Your task to perform on an android device: Open wifi settings Image 0: 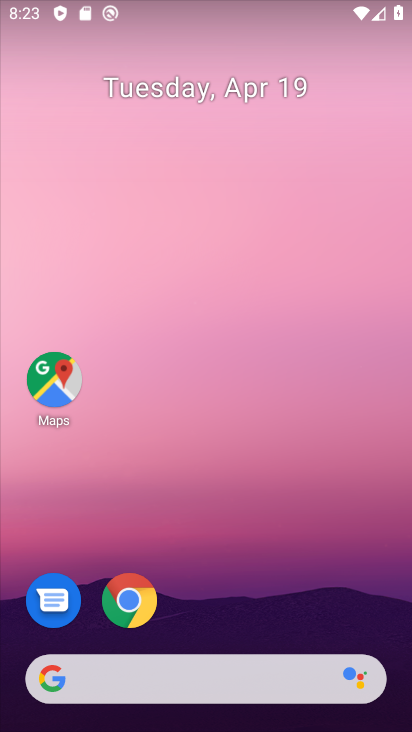
Step 0: drag from (365, 598) to (354, 98)
Your task to perform on an android device: Open wifi settings Image 1: 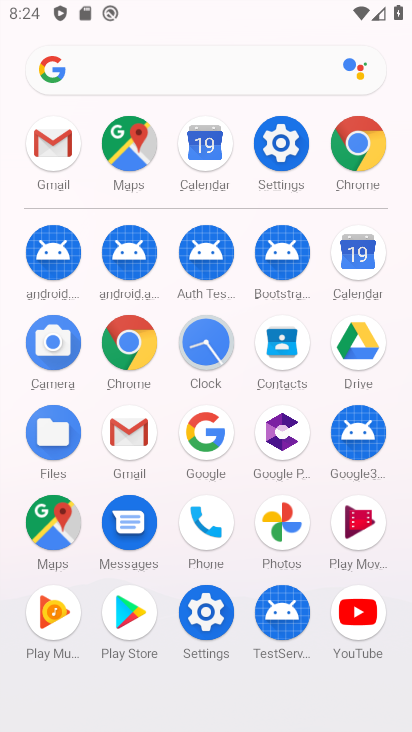
Step 1: click (281, 155)
Your task to perform on an android device: Open wifi settings Image 2: 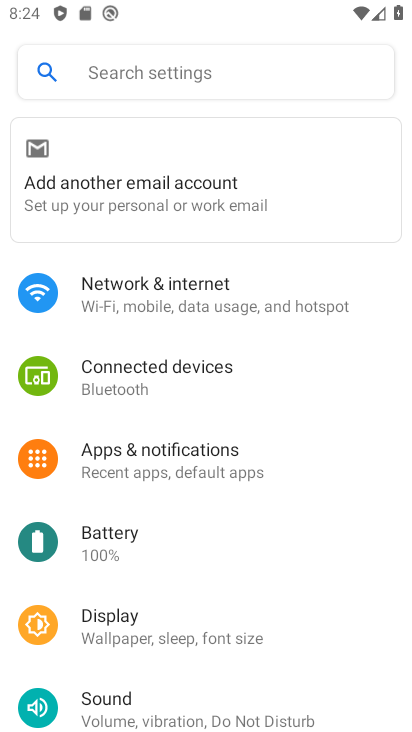
Step 2: drag from (343, 619) to (360, 388)
Your task to perform on an android device: Open wifi settings Image 3: 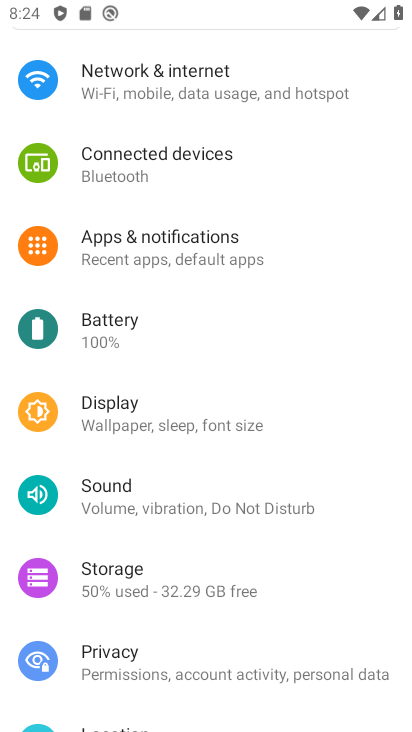
Step 3: drag from (347, 591) to (355, 358)
Your task to perform on an android device: Open wifi settings Image 4: 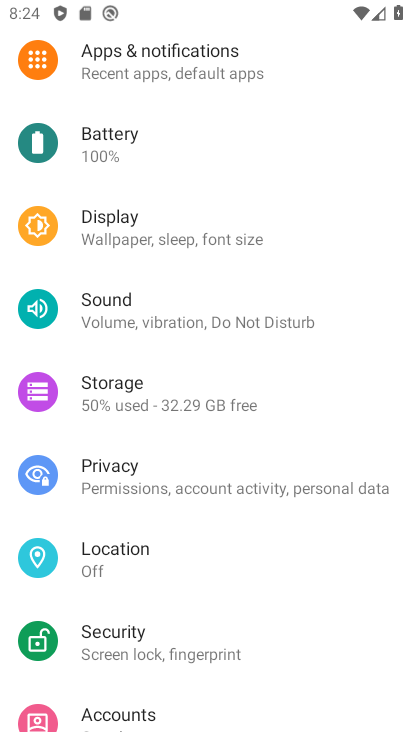
Step 4: drag from (338, 628) to (361, 355)
Your task to perform on an android device: Open wifi settings Image 5: 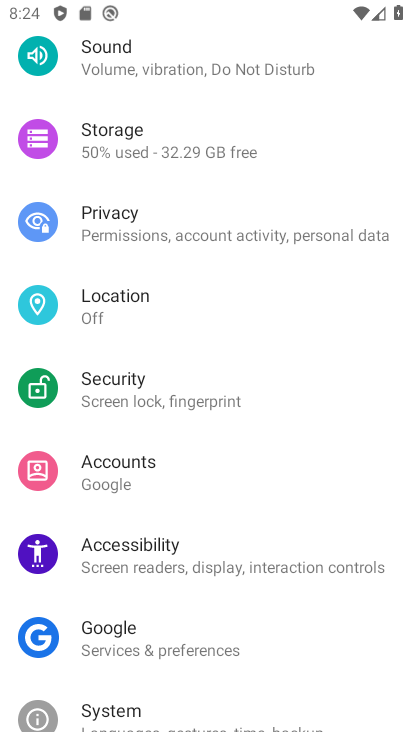
Step 5: drag from (327, 665) to (351, 417)
Your task to perform on an android device: Open wifi settings Image 6: 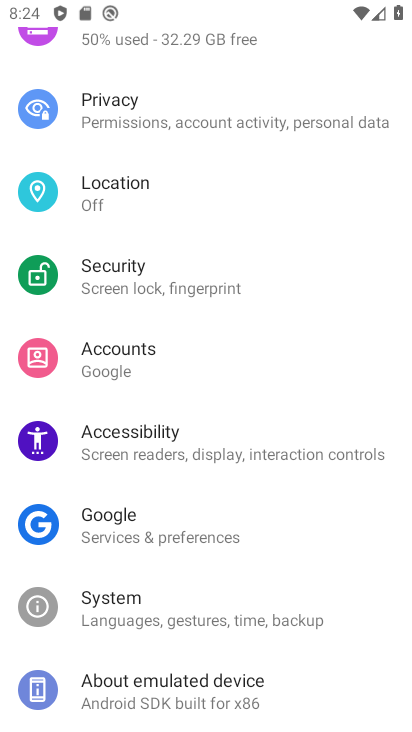
Step 6: drag from (358, 271) to (359, 469)
Your task to perform on an android device: Open wifi settings Image 7: 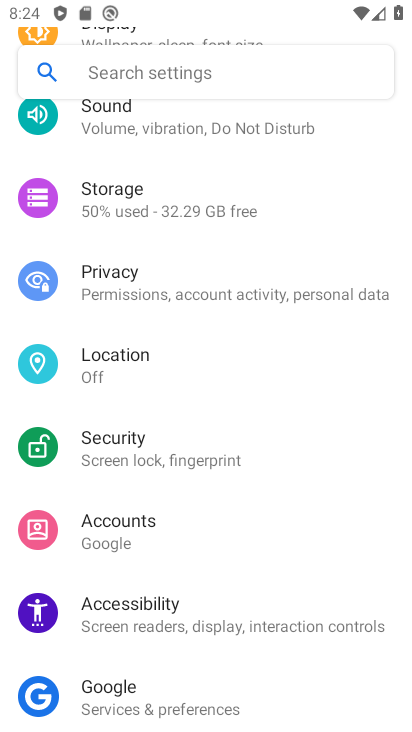
Step 7: drag from (372, 345) to (365, 549)
Your task to perform on an android device: Open wifi settings Image 8: 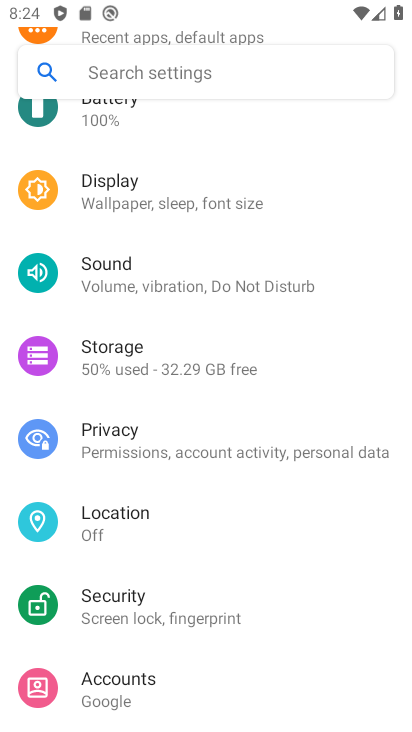
Step 8: drag from (387, 234) to (391, 524)
Your task to perform on an android device: Open wifi settings Image 9: 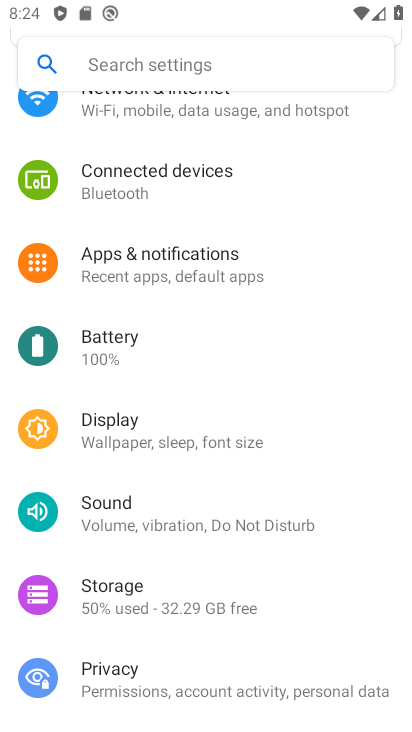
Step 9: drag from (363, 242) to (352, 477)
Your task to perform on an android device: Open wifi settings Image 10: 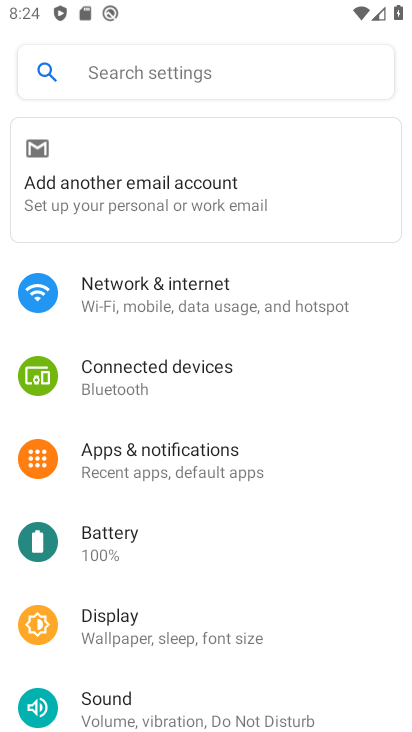
Step 10: click (204, 280)
Your task to perform on an android device: Open wifi settings Image 11: 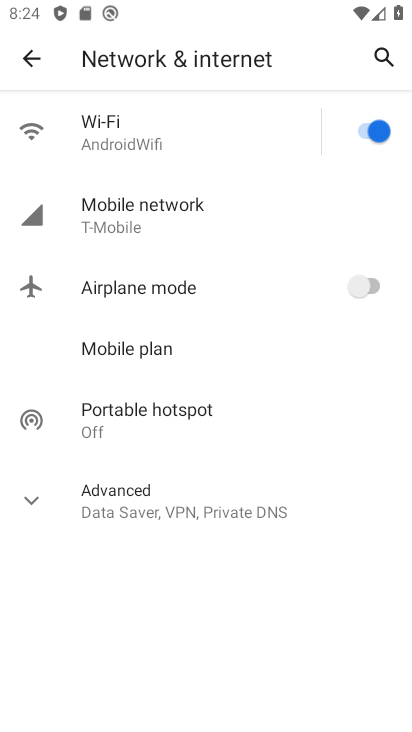
Step 11: click (119, 118)
Your task to perform on an android device: Open wifi settings Image 12: 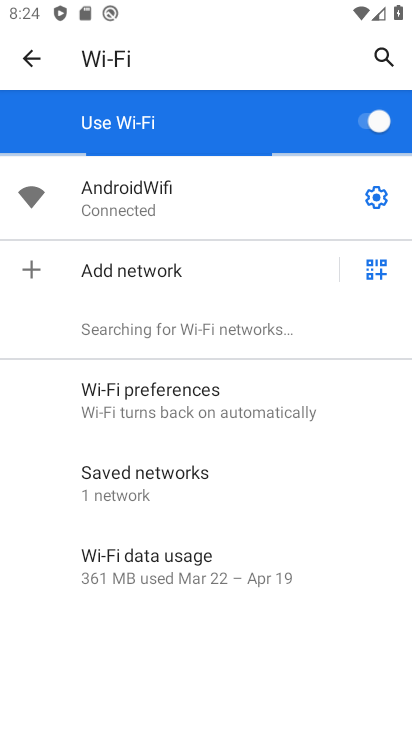
Step 12: task complete